Your task to perform on an android device: Search for asus rog on newegg, select the first entry, add it to the cart, then select checkout. Image 0: 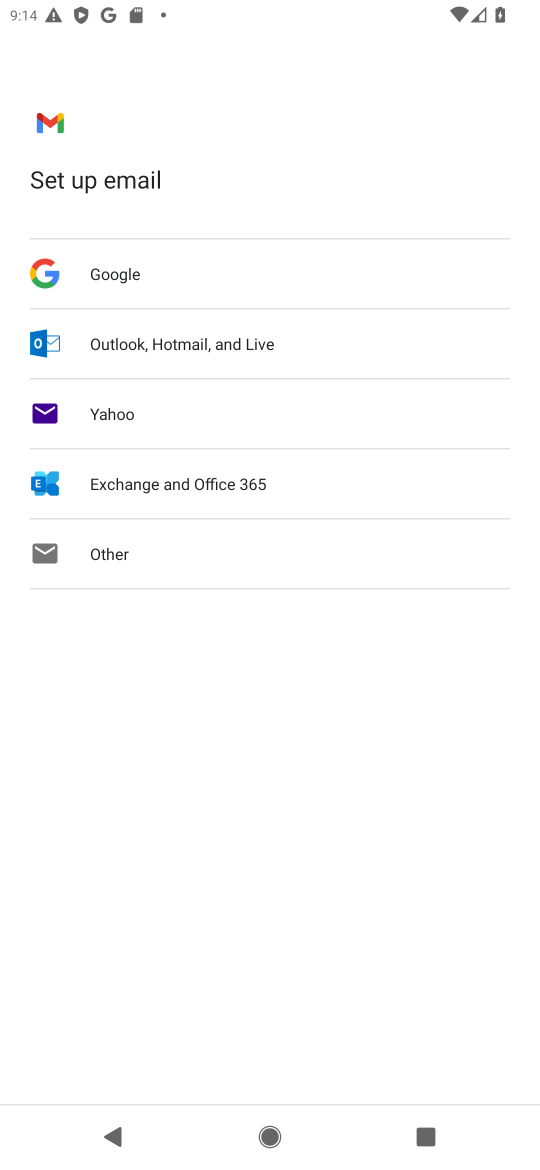
Step 0: press home button
Your task to perform on an android device: Search for asus rog on newegg, select the first entry, add it to the cart, then select checkout. Image 1: 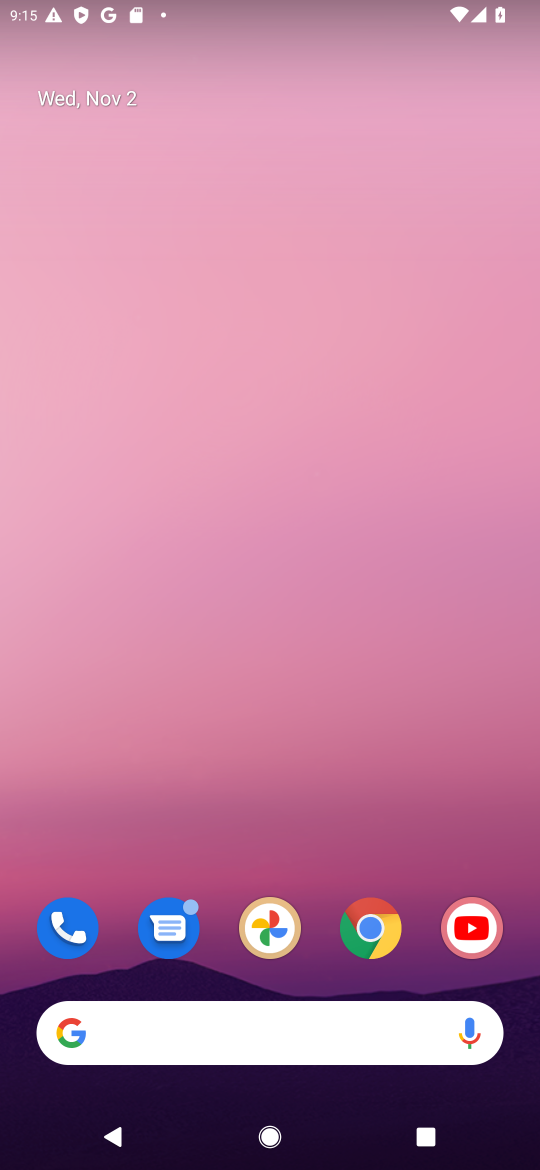
Step 1: click (373, 951)
Your task to perform on an android device: Search for asus rog on newegg, select the first entry, add it to the cart, then select checkout. Image 2: 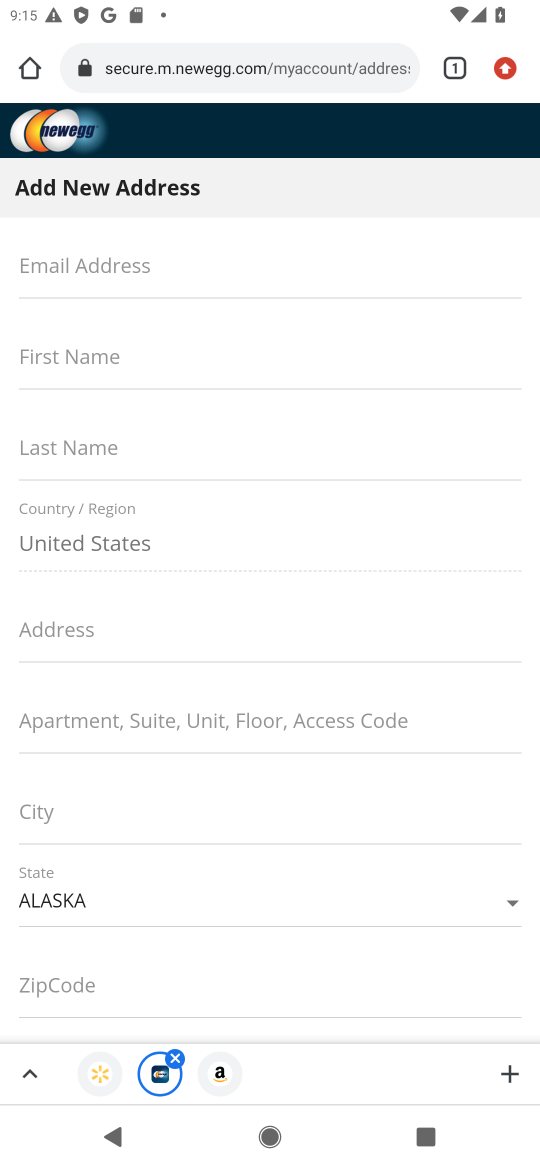
Step 2: click (283, 80)
Your task to perform on an android device: Search for asus rog on newegg, select the first entry, add it to the cart, then select checkout. Image 3: 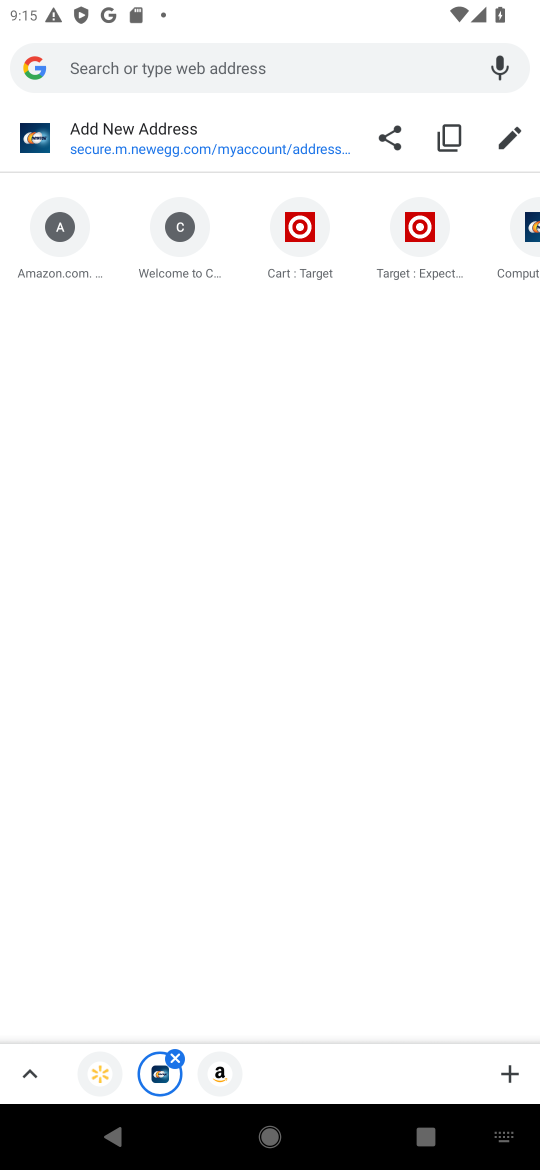
Step 3: click (56, 135)
Your task to perform on an android device: Search for asus rog on newegg, select the first entry, add it to the cart, then select checkout. Image 4: 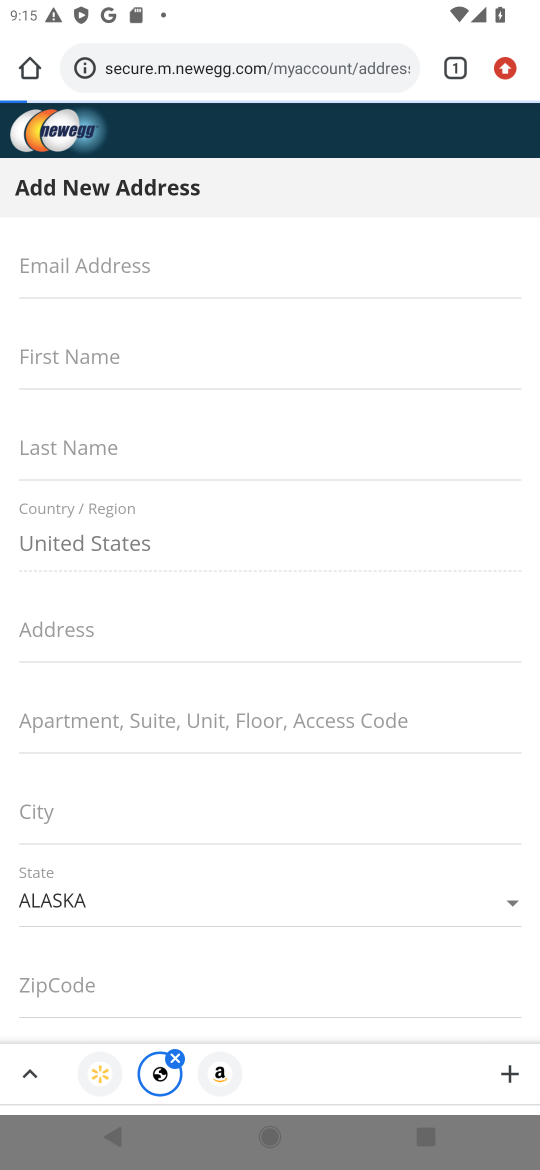
Step 4: click (129, 88)
Your task to perform on an android device: Search for asus rog on newegg, select the first entry, add it to the cart, then select checkout. Image 5: 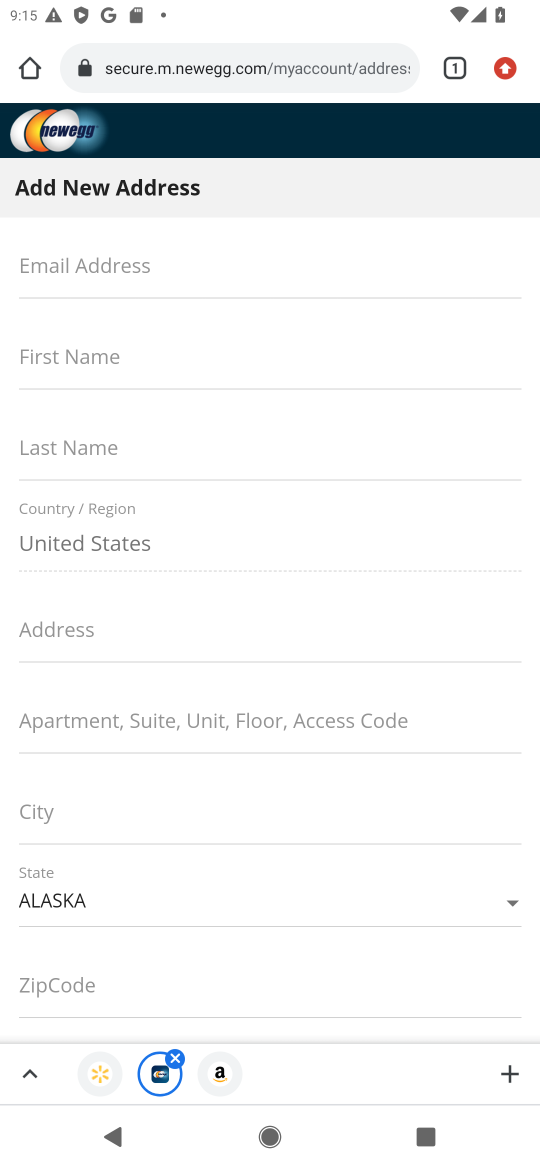
Step 5: click (131, 70)
Your task to perform on an android device: Search for asus rog on newegg, select the first entry, add it to the cart, then select checkout. Image 6: 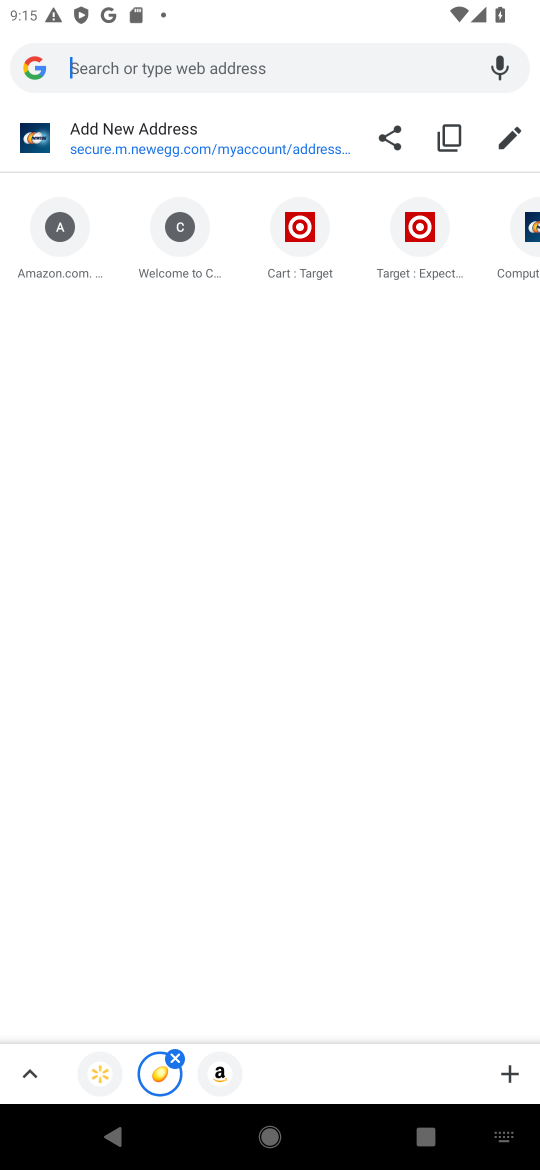
Step 6: type "newegg"
Your task to perform on an android device: Search for asus rog on newegg, select the first entry, add it to the cart, then select checkout. Image 7: 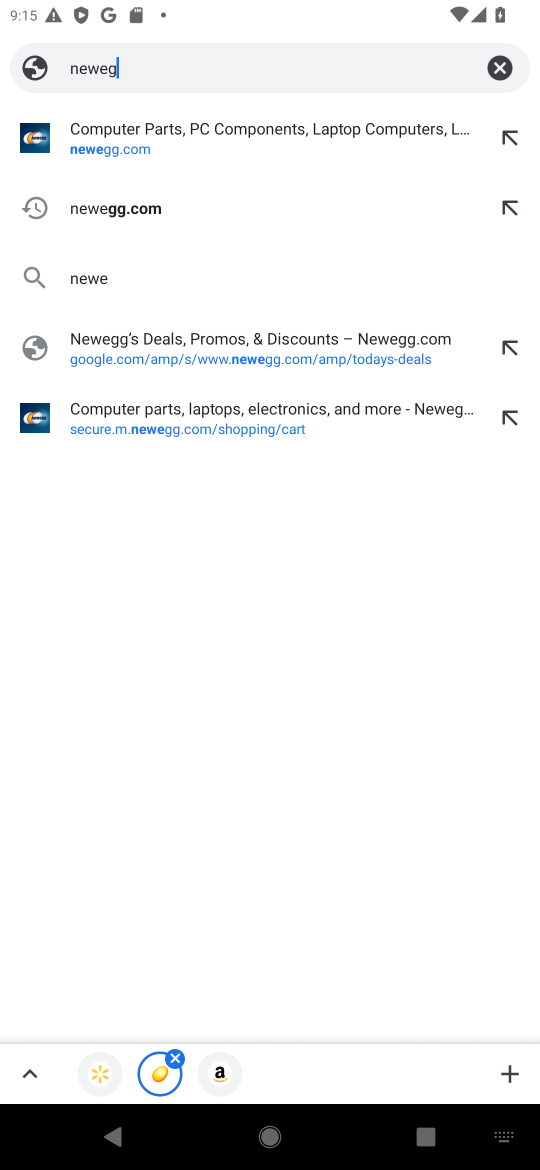
Step 7: type ""
Your task to perform on an android device: Search for asus rog on newegg, select the first entry, add it to the cart, then select checkout. Image 8: 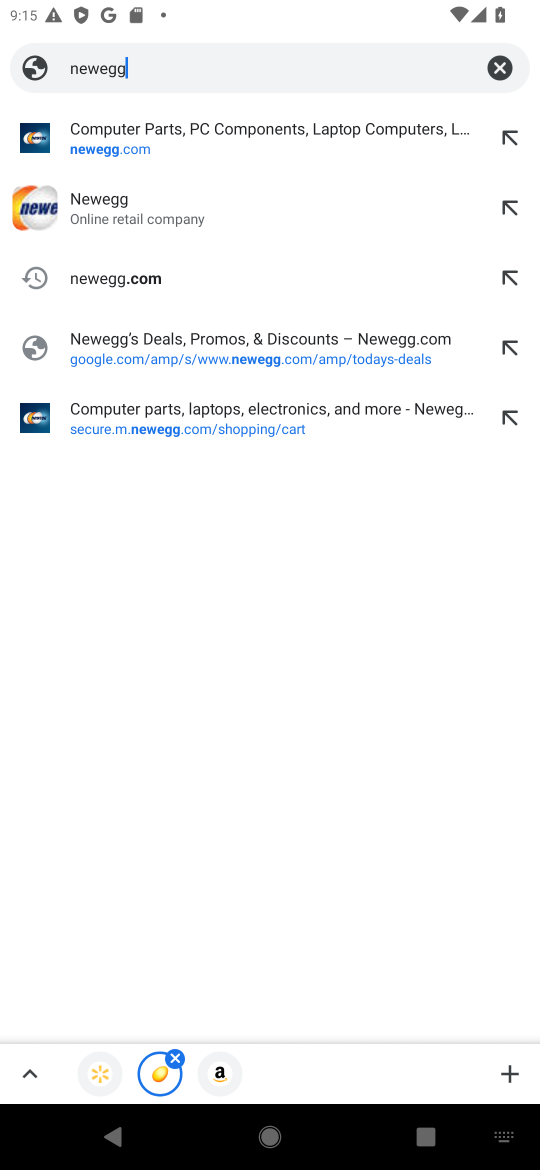
Step 8: click (204, 136)
Your task to perform on an android device: Search for asus rog on newegg, select the first entry, add it to the cart, then select checkout. Image 9: 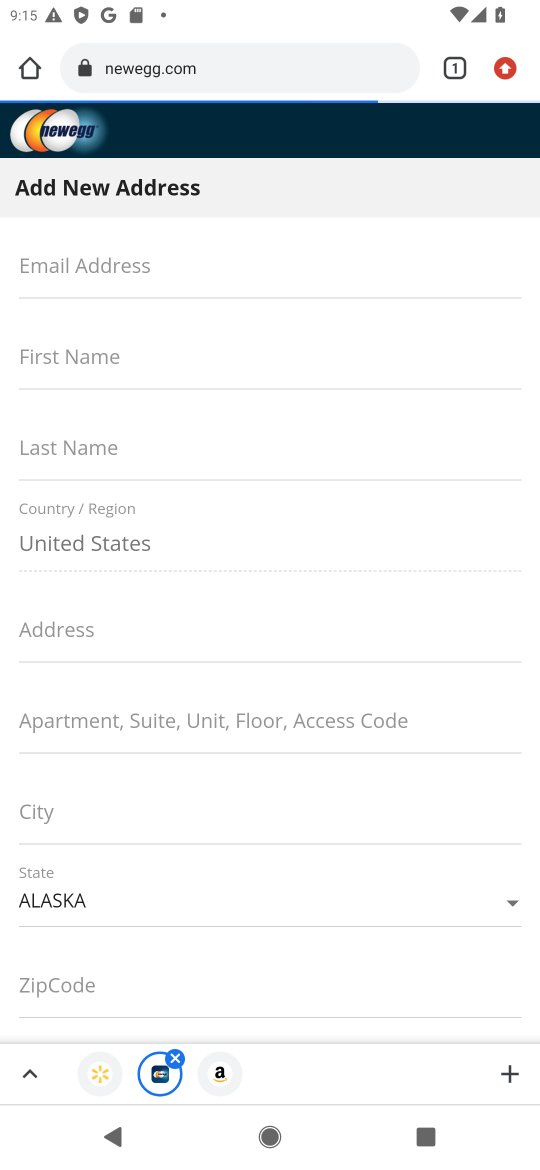
Step 9: click (204, 136)
Your task to perform on an android device: Search for asus rog on newegg, select the first entry, add it to the cart, then select checkout. Image 10: 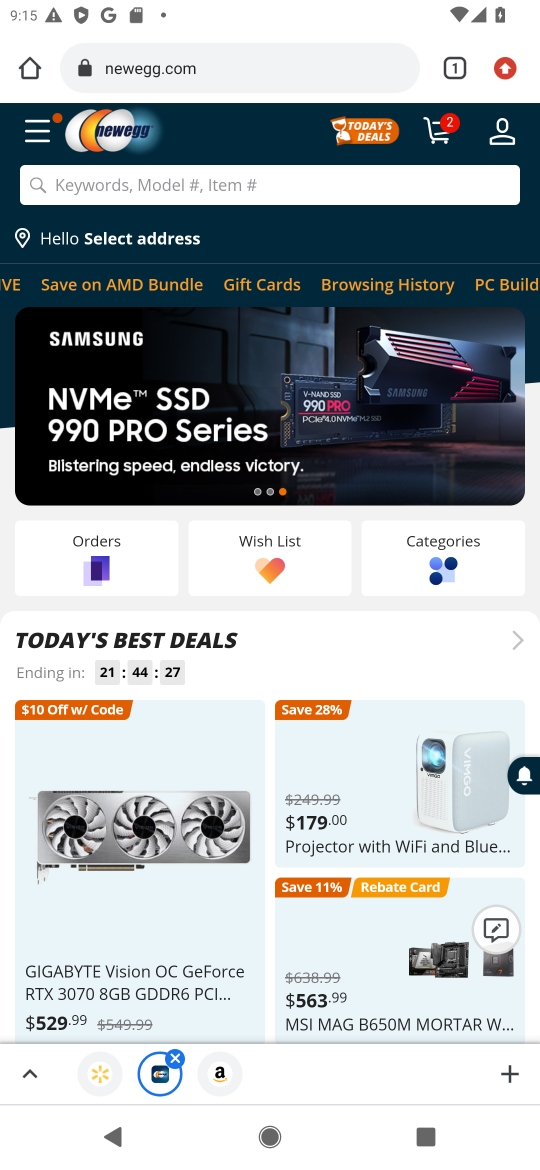
Step 10: click (228, 179)
Your task to perform on an android device: Search for asus rog on newegg, select the first entry, add it to the cart, then select checkout. Image 11: 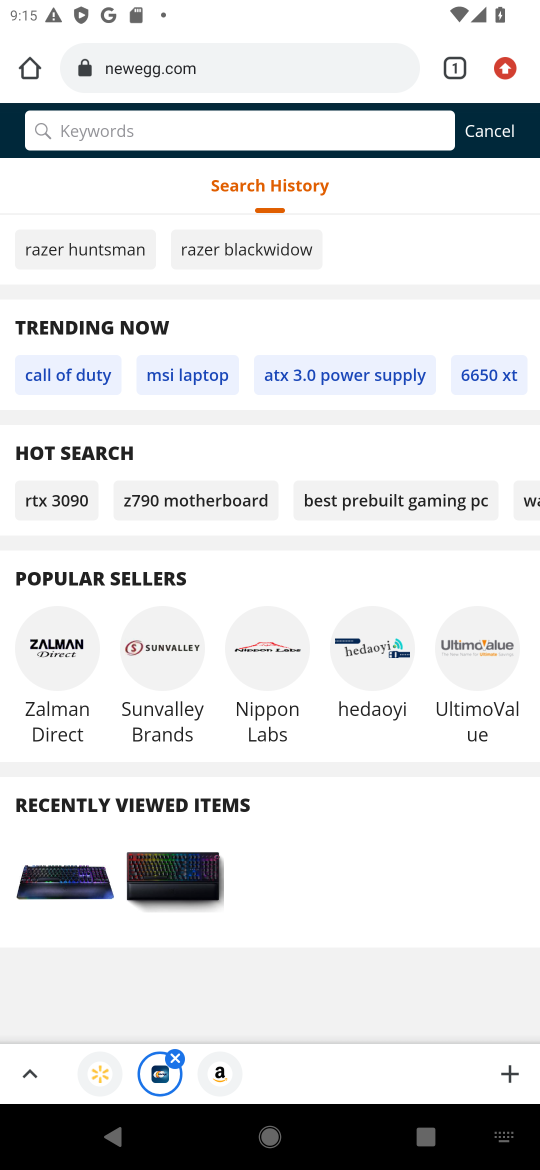
Step 11: type "asus rog"
Your task to perform on an android device: Search for asus rog on newegg, select the first entry, add it to the cart, then select checkout. Image 12: 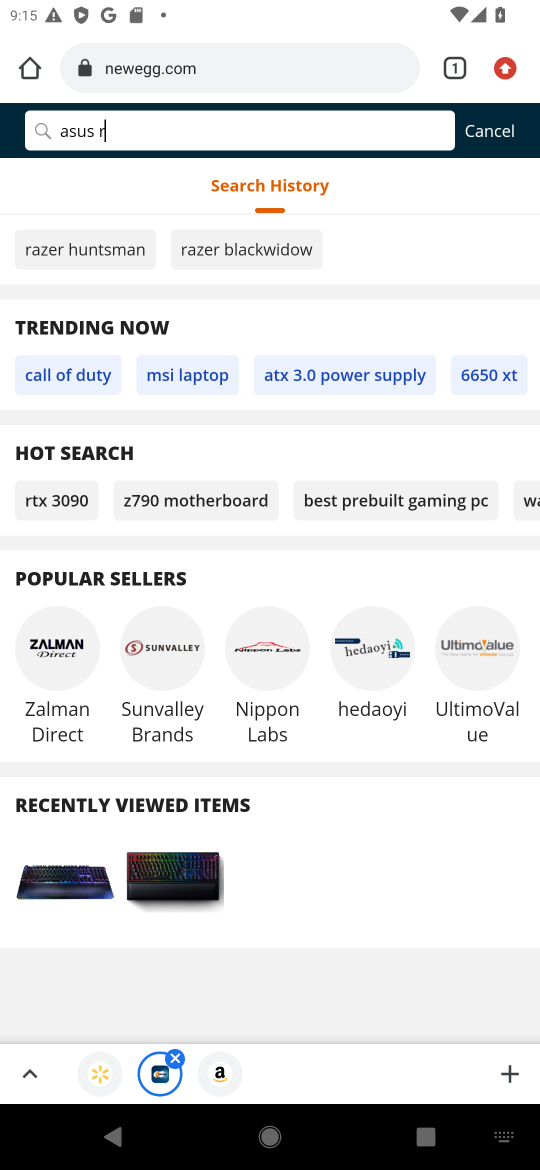
Step 12: type ""
Your task to perform on an android device: Search for asus rog on newegg, select the first entry, add it to the cart, then select checkout. Image 13: 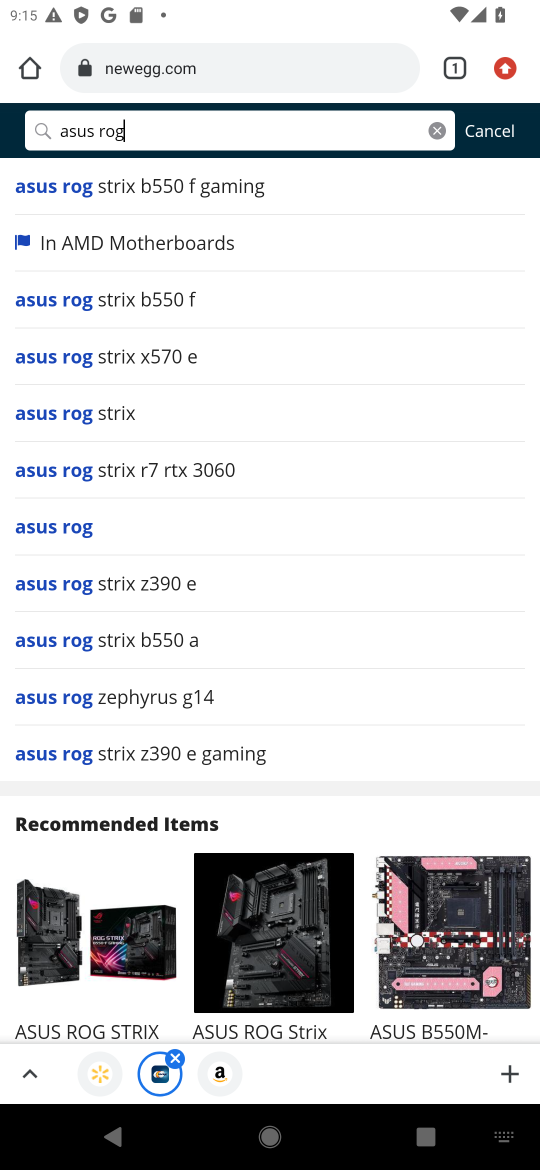
Step 13: press enter
Your task to perform on an android device: Search for asus rog on newegg, select the first entry, add it to the cart, then select checkout. Image 14: 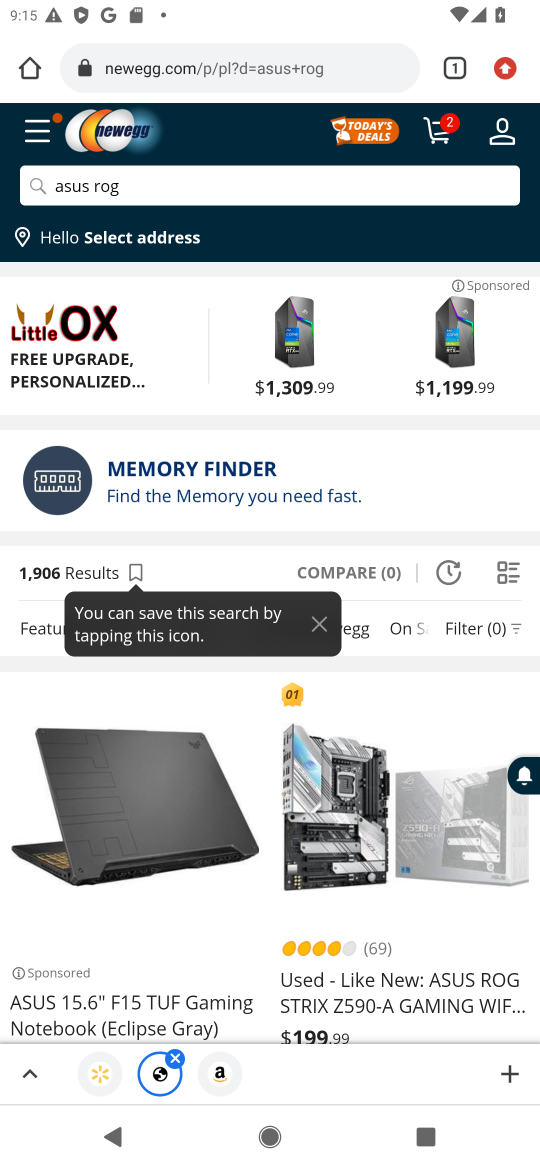
Step 14: click (109, 880)
Your task to perform on an android device: Search for asus rog on newegg, select the first entry, add it to the cart, then select checkout. Image 15: 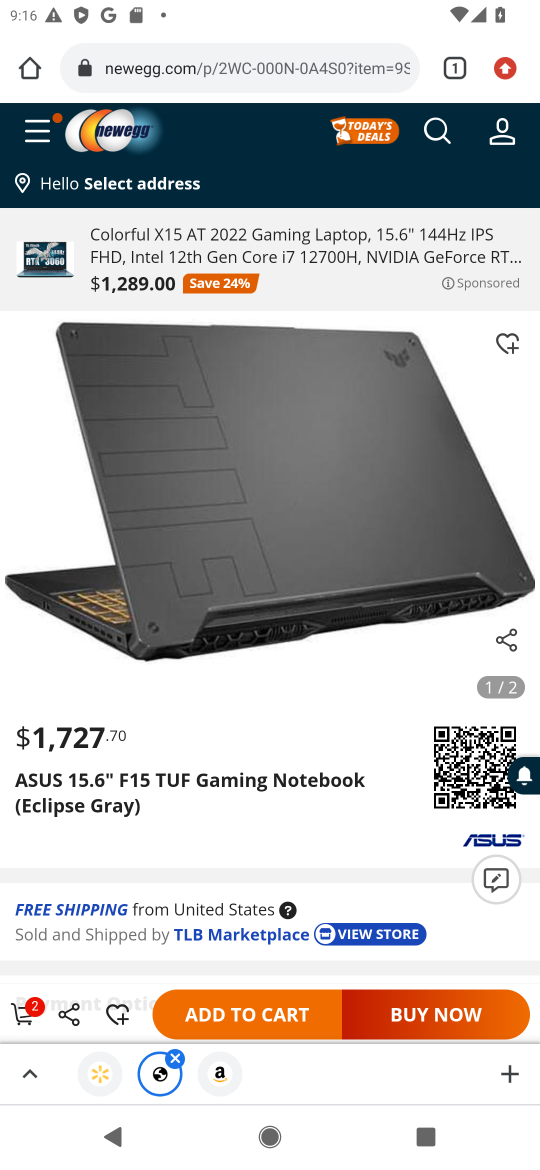
Step 15: drag from (292, 857) to (361, 402)
Your task to perform on an android device: Search for asus rog on newegg, select the first entry, add it to the cart, then select checkout. Image 16: 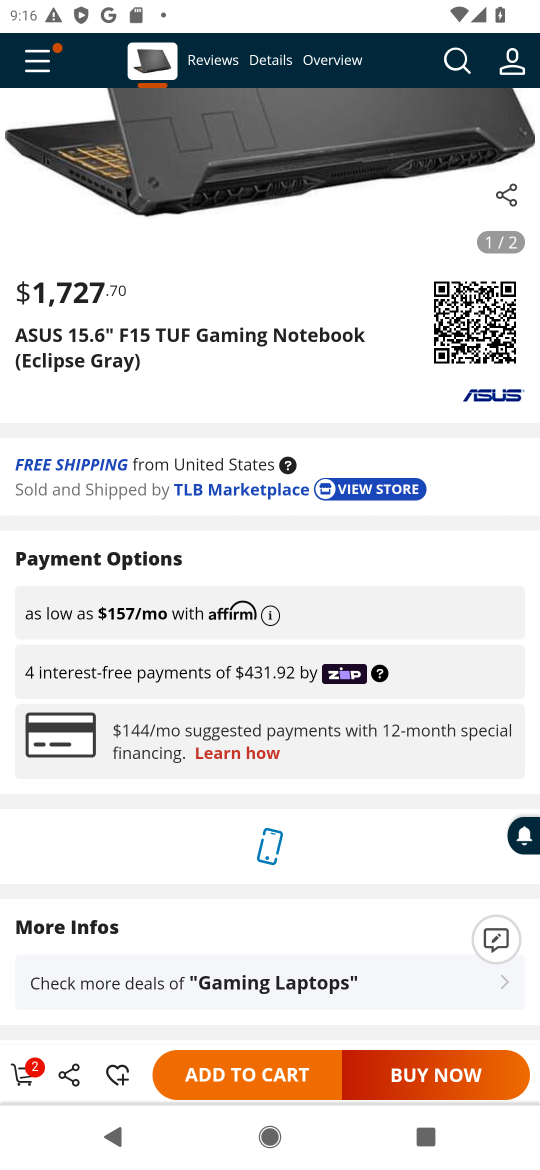
Step 16: click (263, 1091)
Your task to perform on an android device: Search for asus rog on newegg, select the first entry, add it to the cart, then select checkout. Image 17: 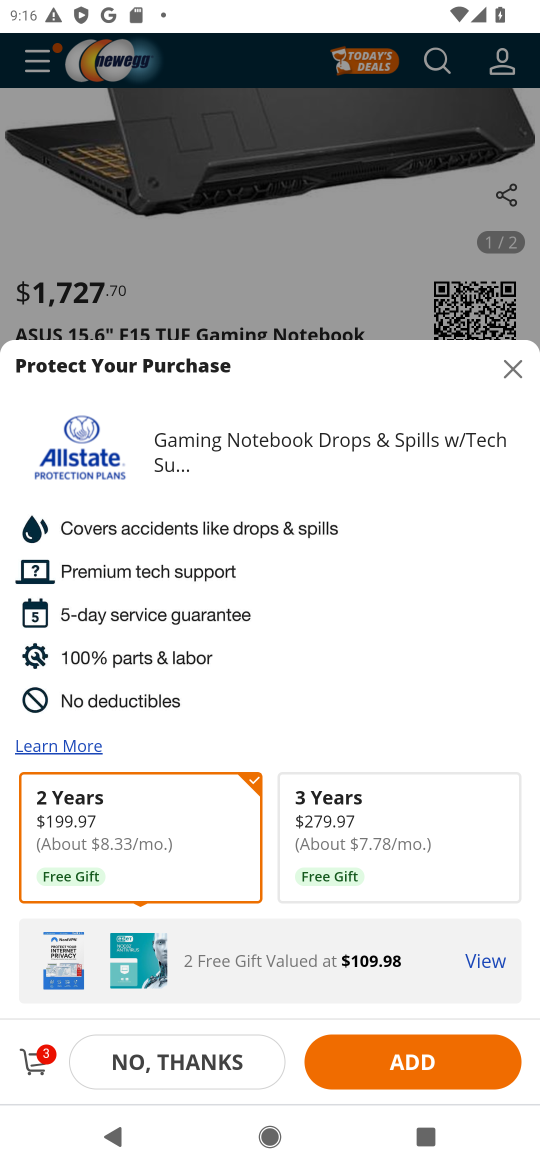
Step 17: click (198, 1050)
Your task to perform on an android device: Search for asus rog on newegg, select the first entry, add it to the cart, then select checkout. Image 18: 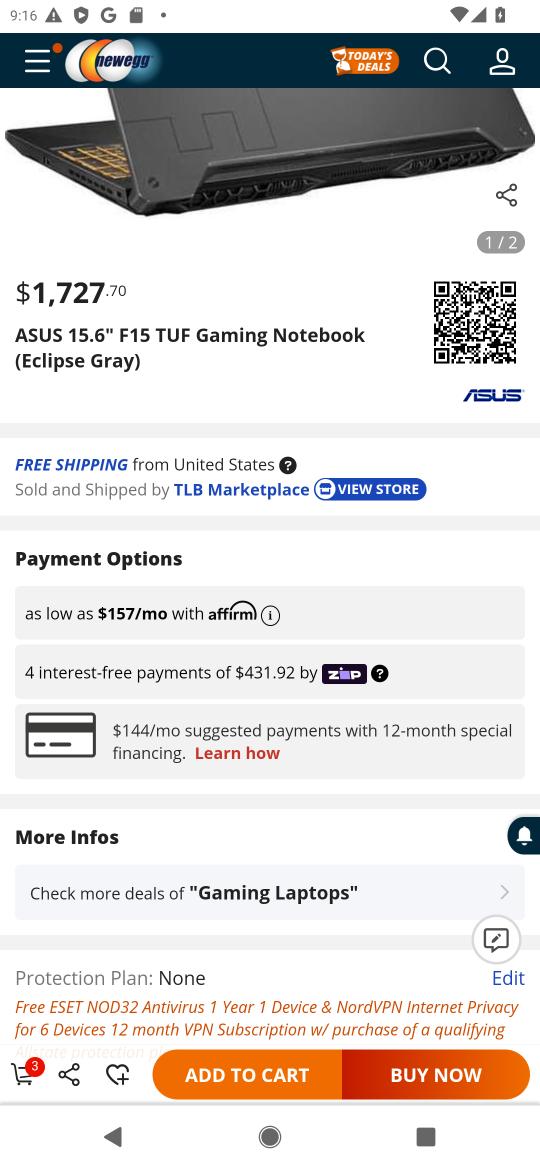
Step 18: task complete